Your task to perform on an android device: open a bookmark in the chrome app Image 0: 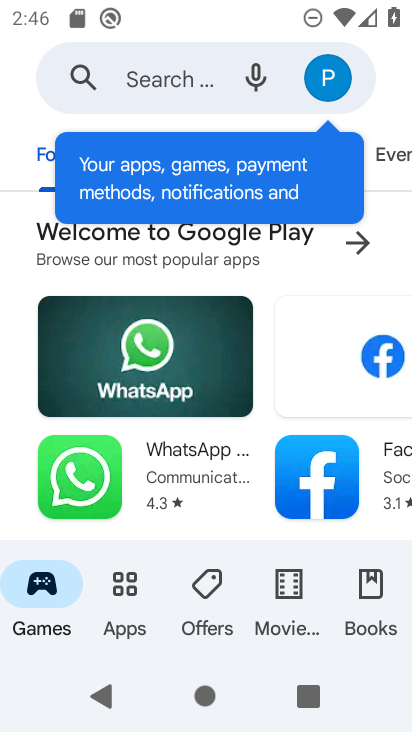
Step 0: press back button
Your task to perform on an android device: open a bookmark in the chrome app Image 1: 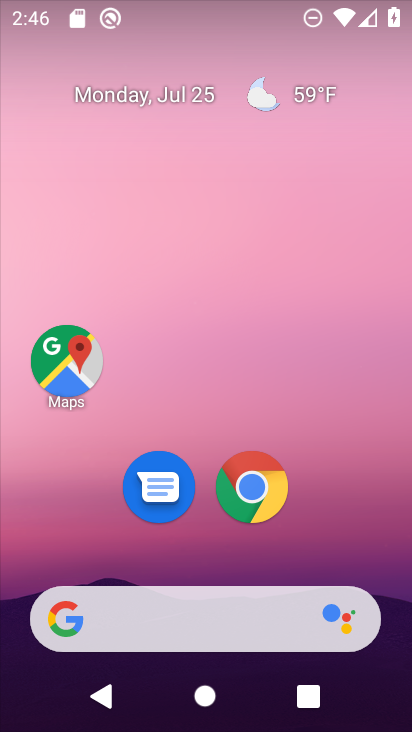
Step 1: click (265, 495)
Your task to perform on an android device: open a bookmark in the chrome app Image 2: 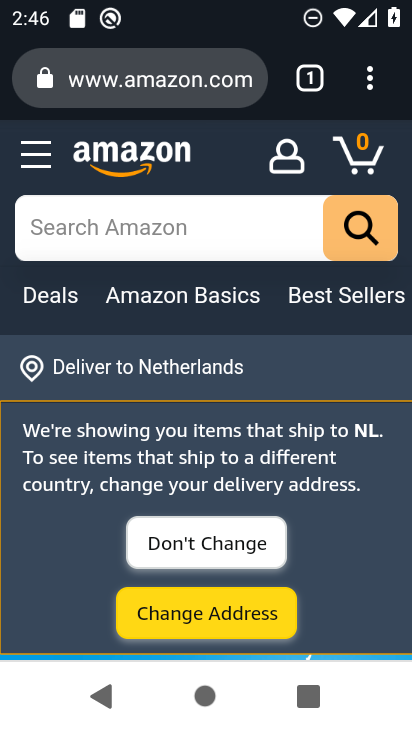
Step 2: drag from (358, 68) to (121, 305)
Your task to perform on an android device: open a bookmark in the chrome app Image 3: 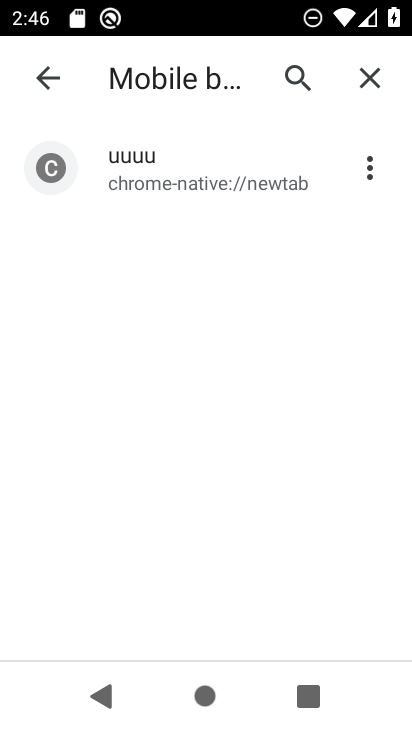
Step 3: click (150, 161)
Your task to perform on an android device: open a bookmark in the chrome app Image 4: 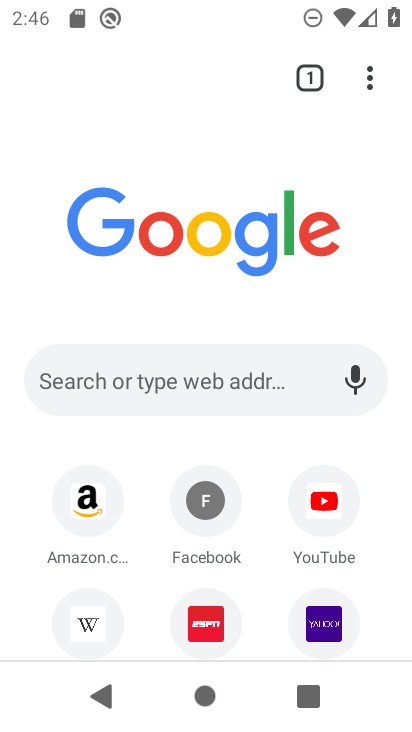
Step 4: task complete